Your task to perform on an android device: Go to CNN.com Image 0: 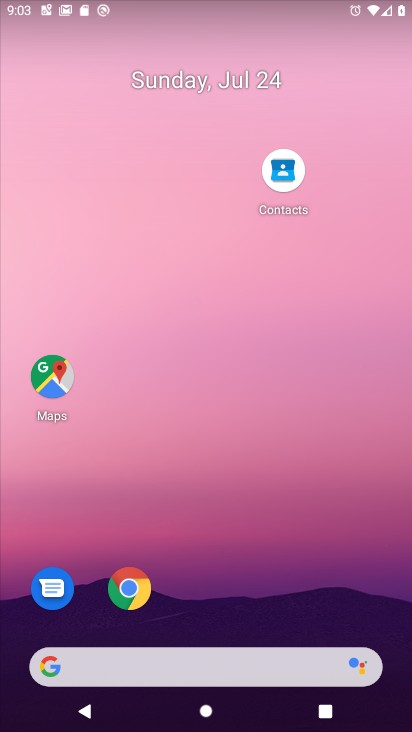
Step 0: press home button
Your task to perform on an android device: Go to CNN.com Image 1: 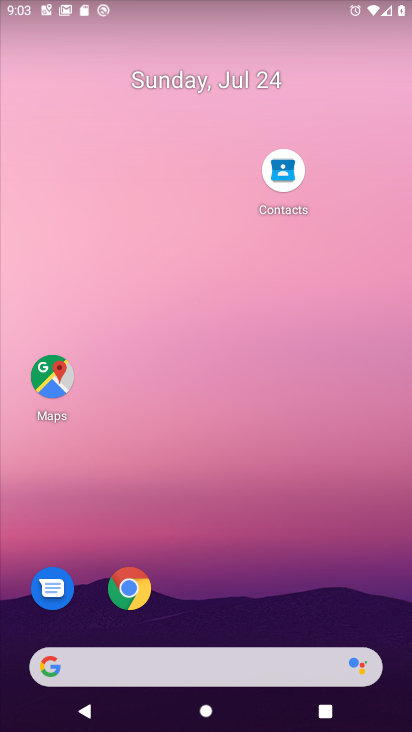
Step 1: click (123, 581)
Your task to perform on an android device: Go to CNN.com Image 2: 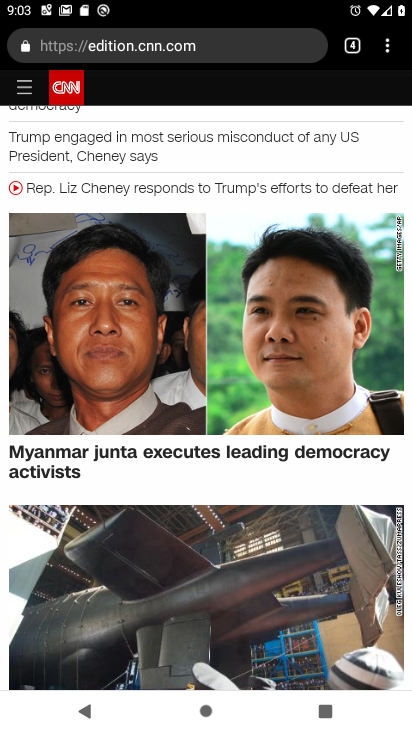
Step 2: task complete